Your task to perform on an android device: Add lenovo thinkpad to the cart on newegg, then select checkout. Image 0: 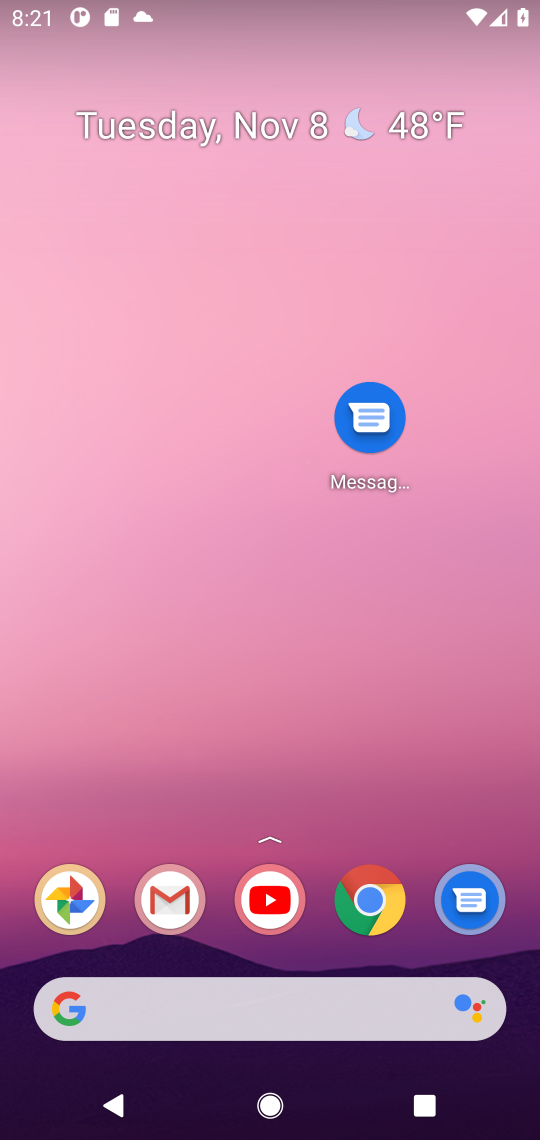
Step 0: drag from (265, 903) to (383, 254)
Your task to perform on an android device: Add lenovo thinkpad to the cart on newegg, then select checkout. Image 1: 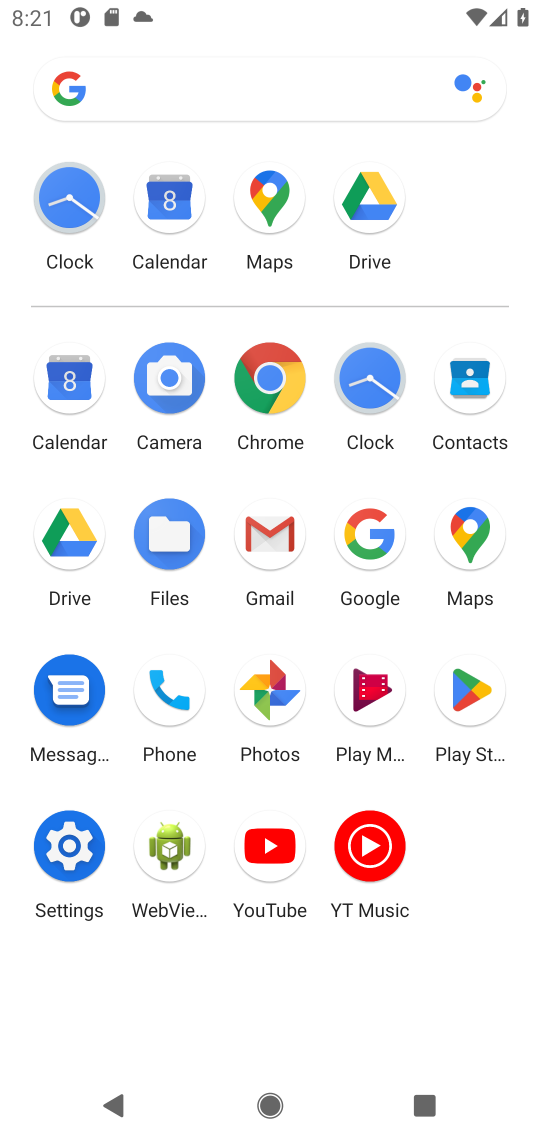
Step 1: click (376, 532)
Your task to perform on an android device: Add lenovo thinkpad to the cart on newegg, then select checkout. Image 2: 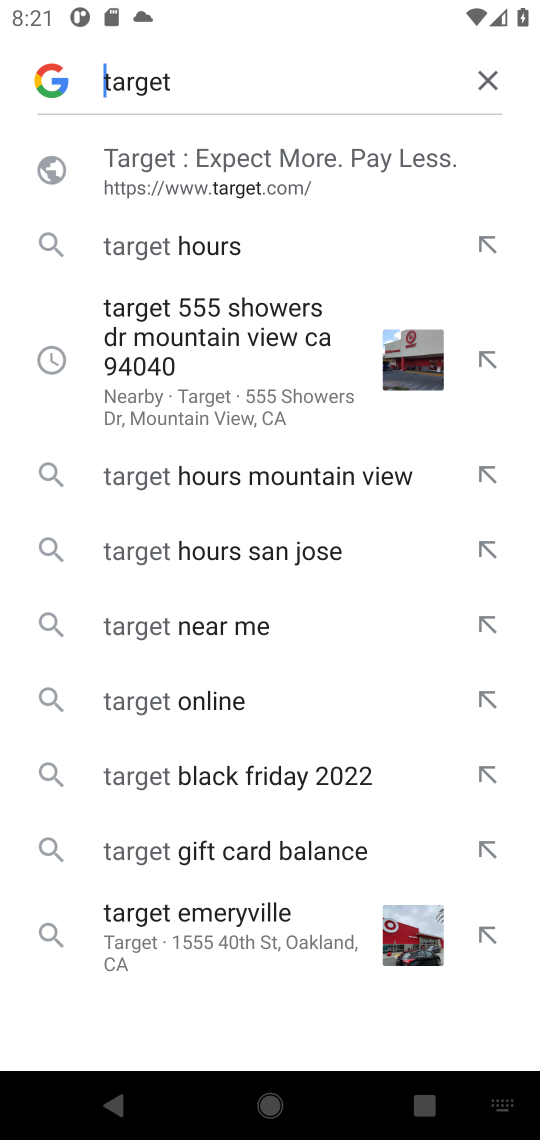
Step 2: click (474, 82)
Your task to perform on an android device: Add lenovo thinkpad to the cart on newegg, then select checkout. Image 3: 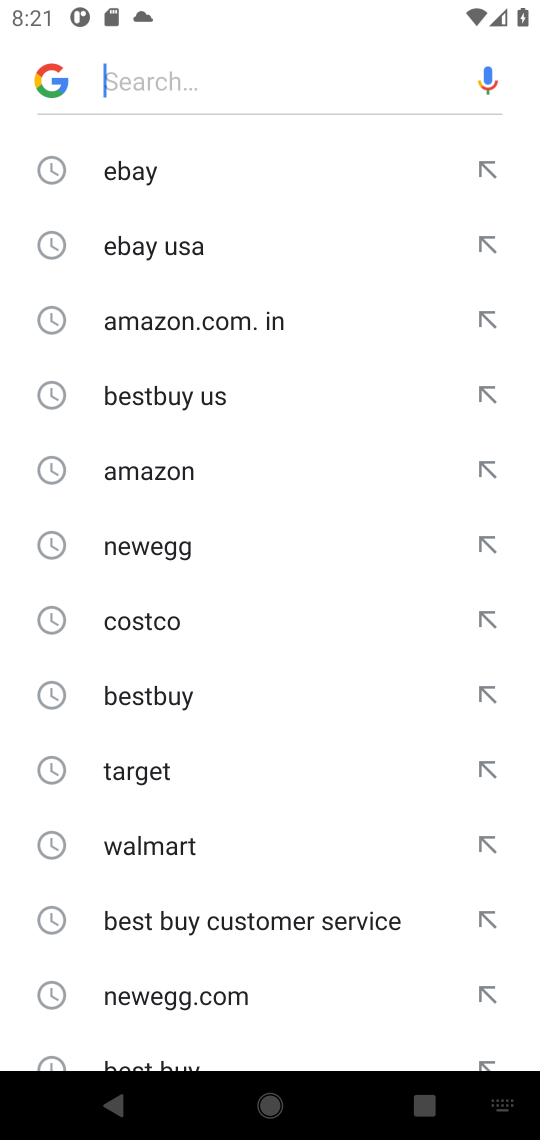
Step 3: click (226, 61)
Your task to perform on an android device: Add lenovo thinkpad to the cart on newegg, then select checkout. Image 4: 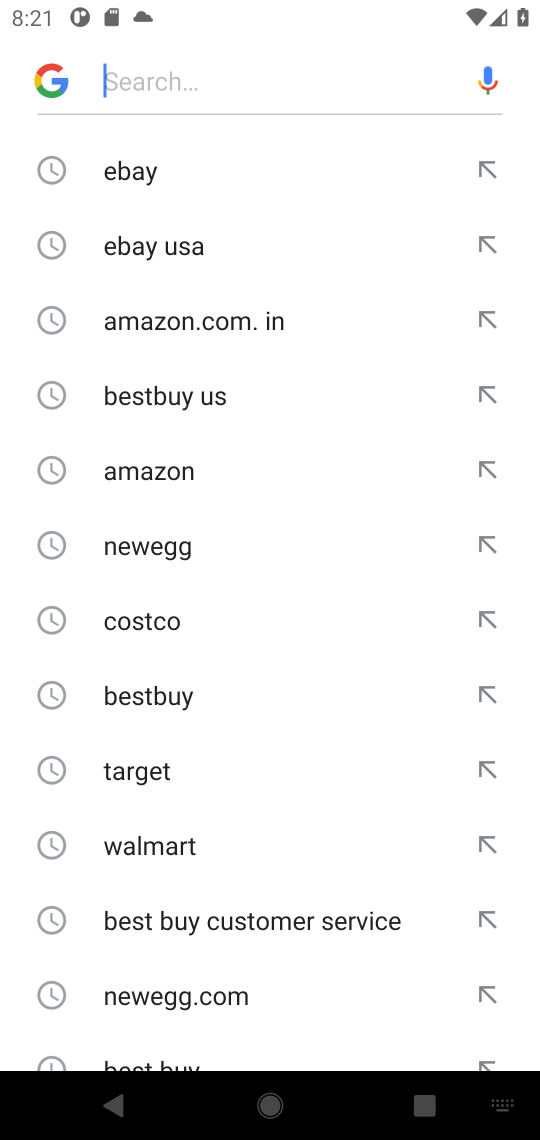
Step 4: type "newegg "
Your task to perform on an android device: Add lenovo thinkpad to the cart on newegg, then select checkout. Image 5: 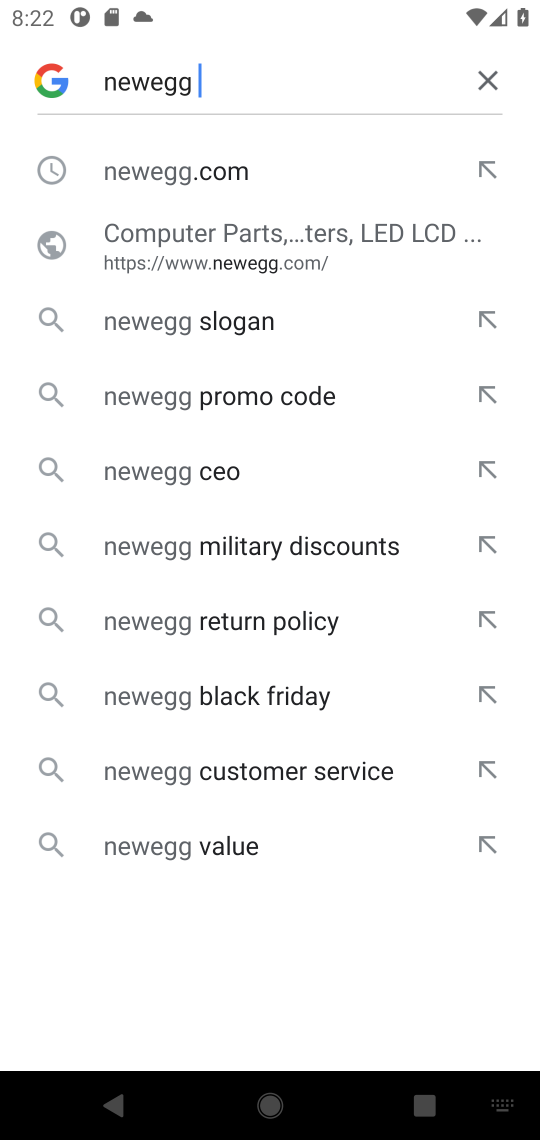
Step 5: click (188, 183)
Your task to perform on an android device: Add lenovo thinkpad to the cart on newegg, then select checkout. Image 6: 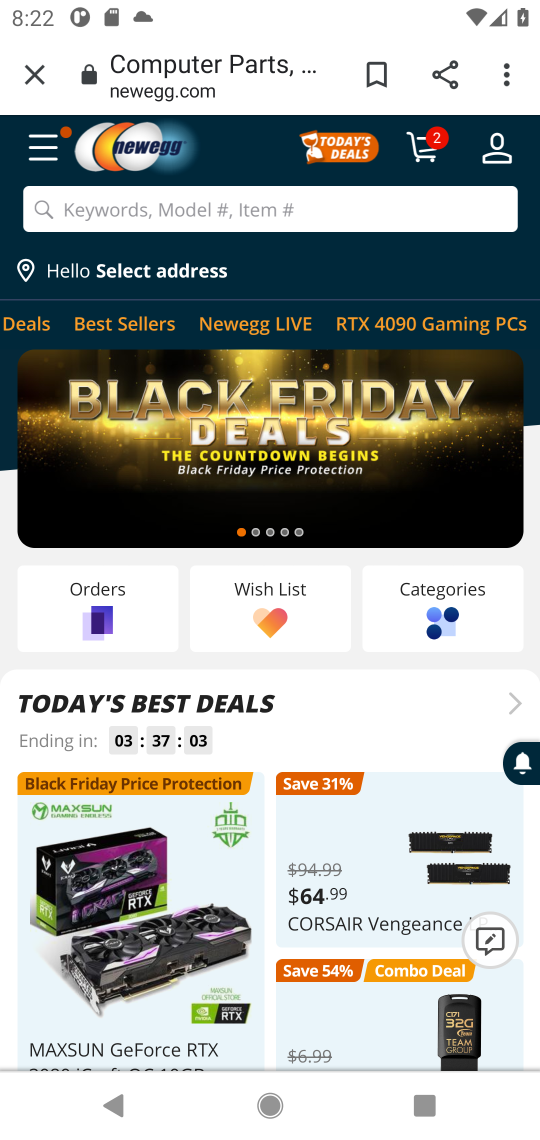
Step 6: click (191, 203)
Your task to perform on an android device: Add lenovo thinkpad to the cart on newegg, then select checkout. Image 7: 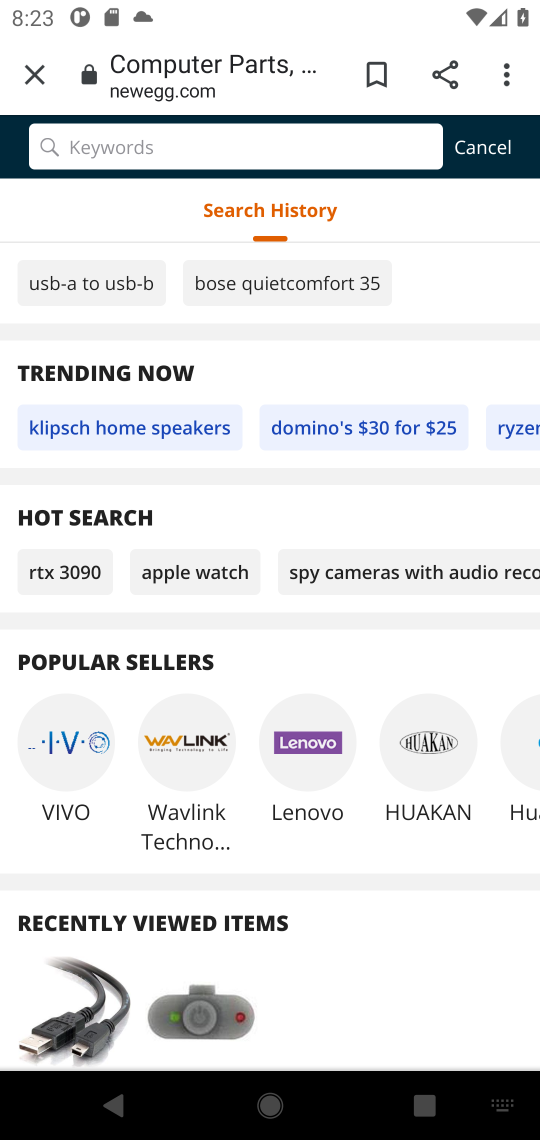
Step 7: click (228, 134)
Your task to perform on an android device: Add lenovo thinkpad to the cart on newegg, then select checkout. Image 8: 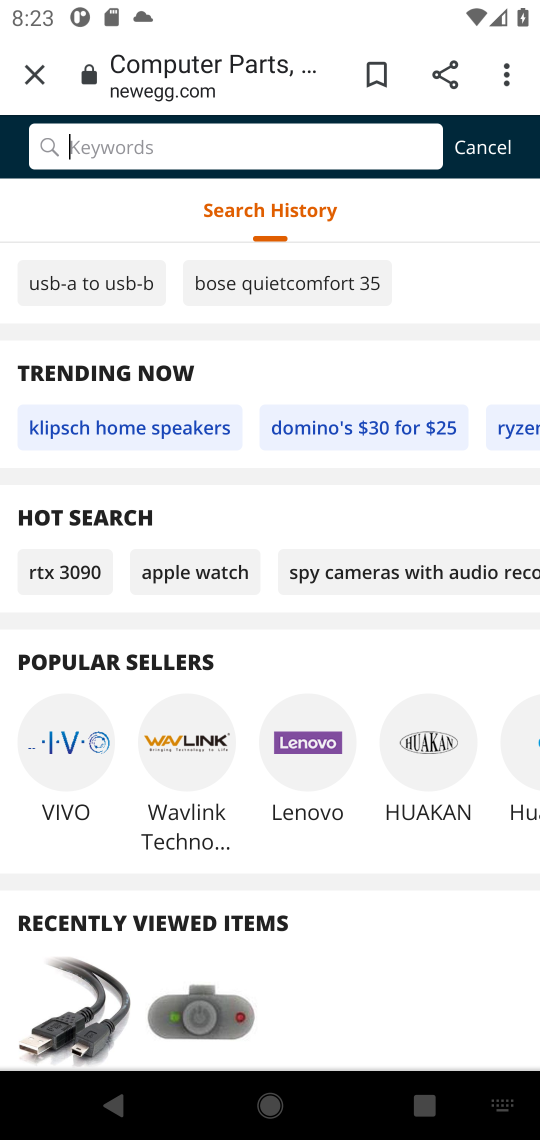
Step 8: type "lenovo thinkpad "
Your task to perform on an android device: Add lenovo thinkpad to the cart on newegg, then select checkout. Image 9: 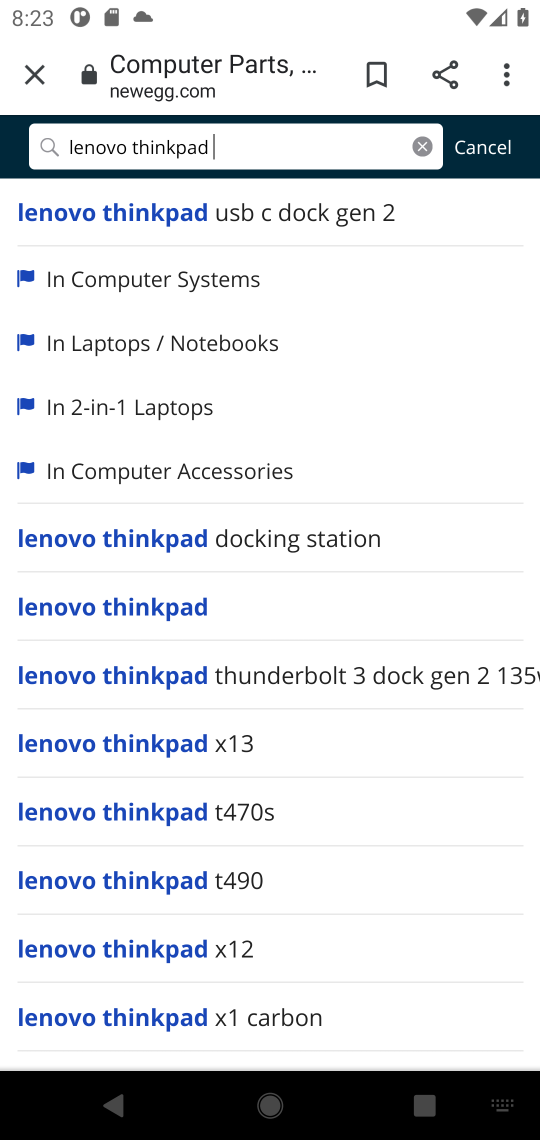
Step 9: click (150, 205)
Your task to perform on an android device: Add lenovo thinkpad to the cart on newegg, then select checkout. Image 10: 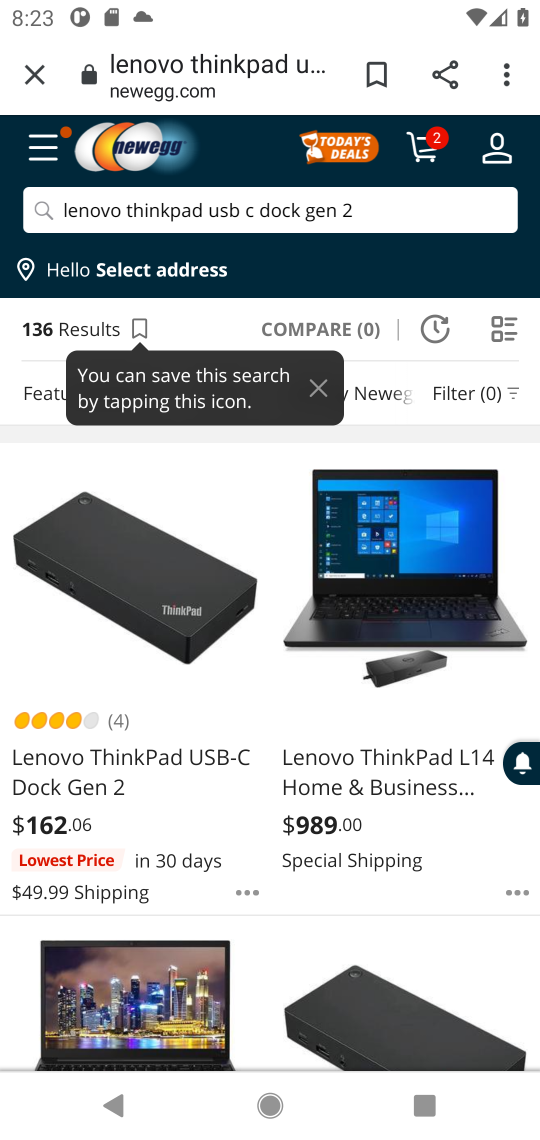
Step 10: click (380, 561)
Your task to perform on an android device: Add lenovo thinkpad to the cart on newegg, then select checkout. Image 11: 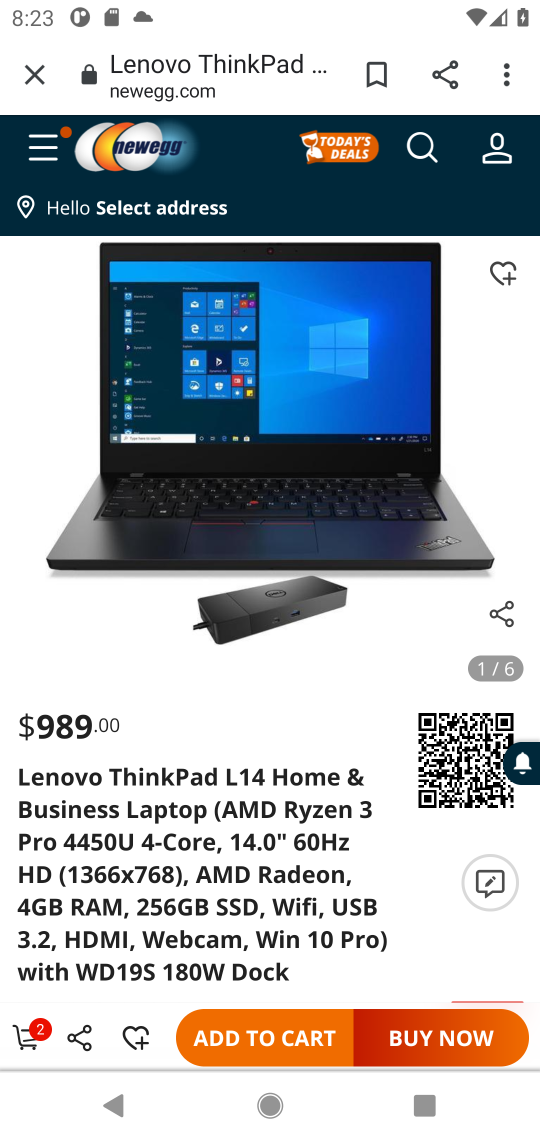
Step 11: click (244, 1034)
Your task to perform on an android device: Add lenovo thinkpad to the cart on newegg, then select checkout. Image 12: 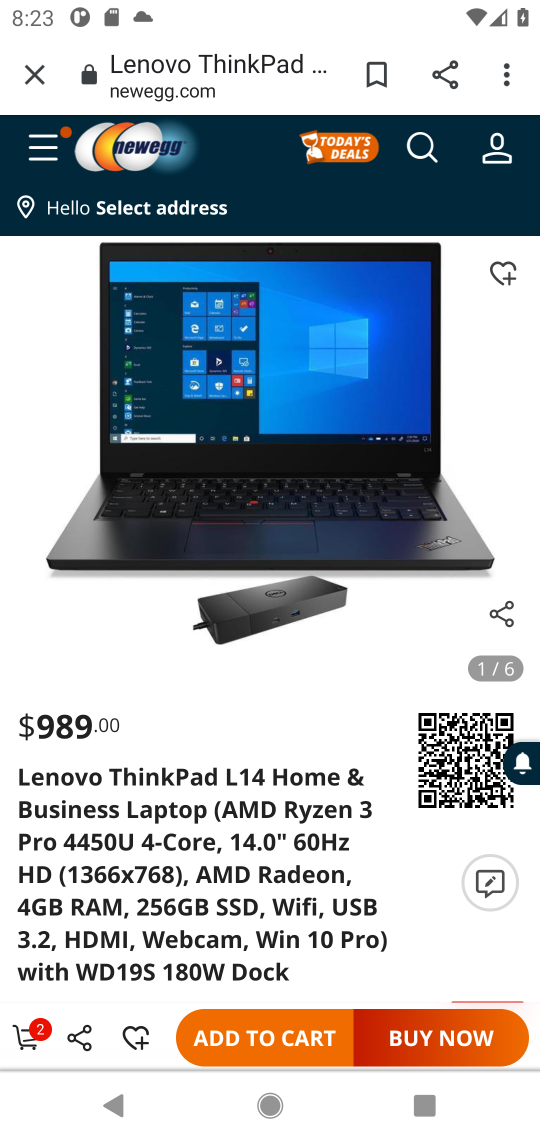
Step 12: click (265, 1028)
Your task to perform on an android device: Add lenovo thinkpad to the cart on newegg, then select checkout. Image 13: 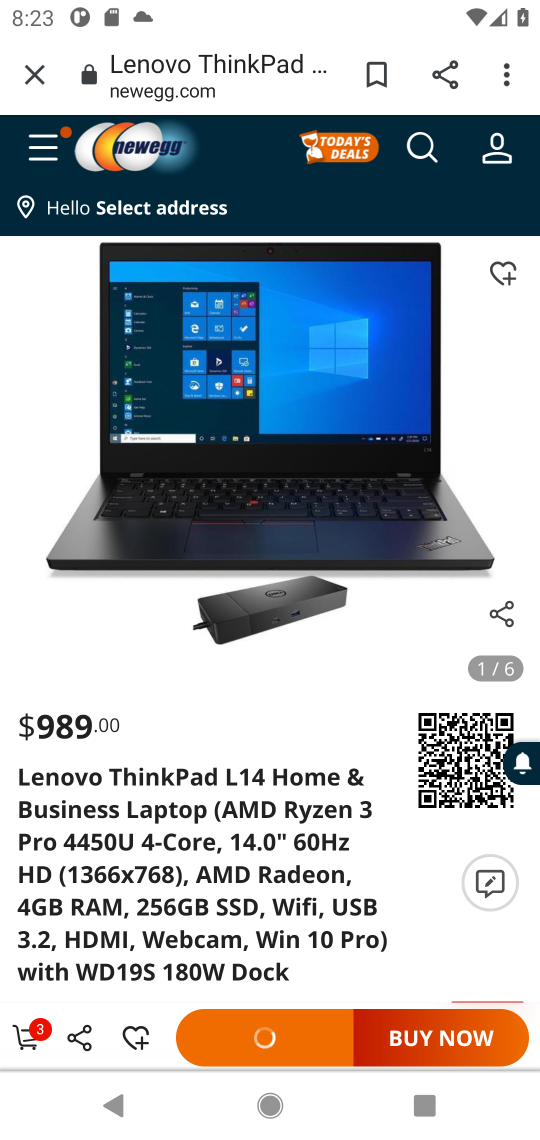
Step 13: click (265, 1028)
Your task to perform on an android device: Add lenovo thinkpad to the cart on newegg, then select checkout. Image 14: 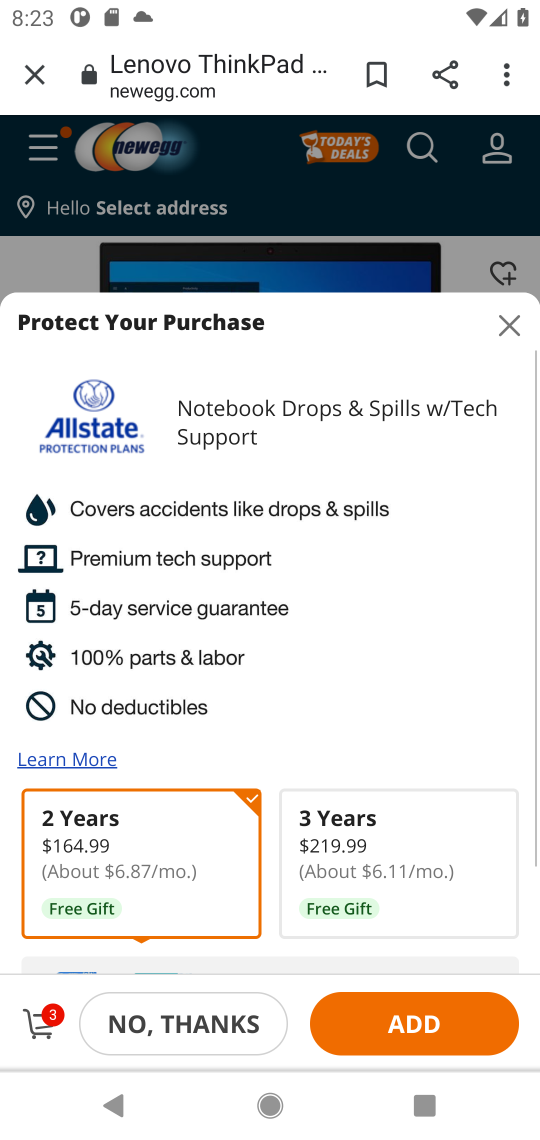
Step 14: task complete